Your task to perform on an android device: Show me popular games on the Play Store Image 0: 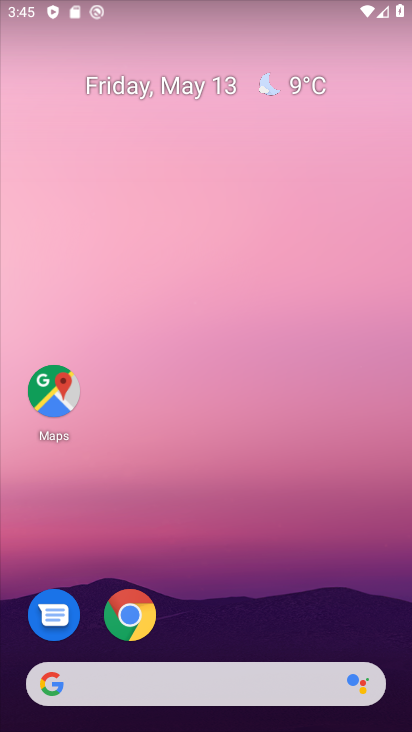
Step 0: drag from (197, 557) to (311, 158)
Your task to perform on an android device: Show me popular games on the Play Store Image 1: 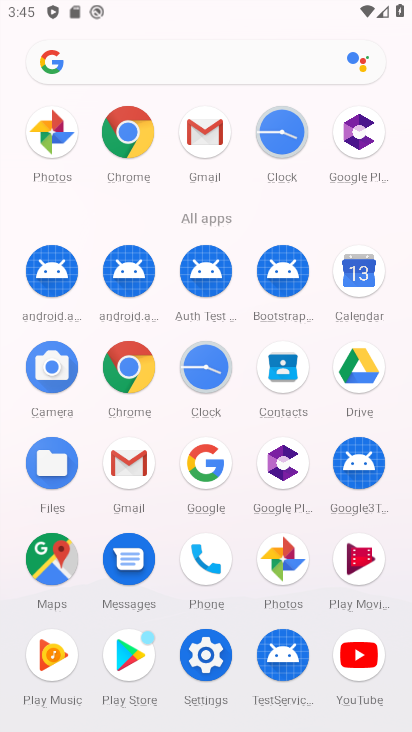
Step 1: click (135, 646)
Your task to perform on an android device: Show me popular games on the Play Store Image 2: 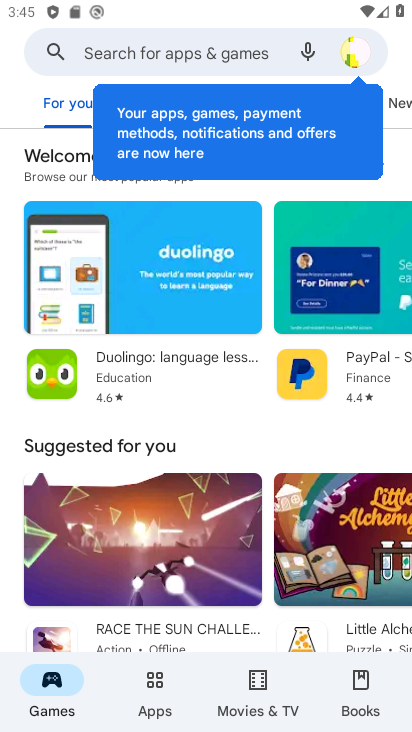
Step 2: click (63, 690)
Your task to perform on an android device: Show me popular games on the Play Store Image 3: 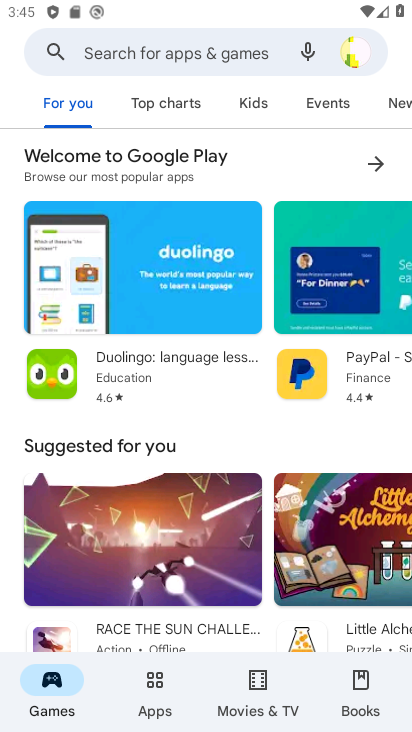
Step 3: drag from (198, 512) to (263, 72)
Your task to perform on an android device: Show me popular games on the Play Store Image 4: 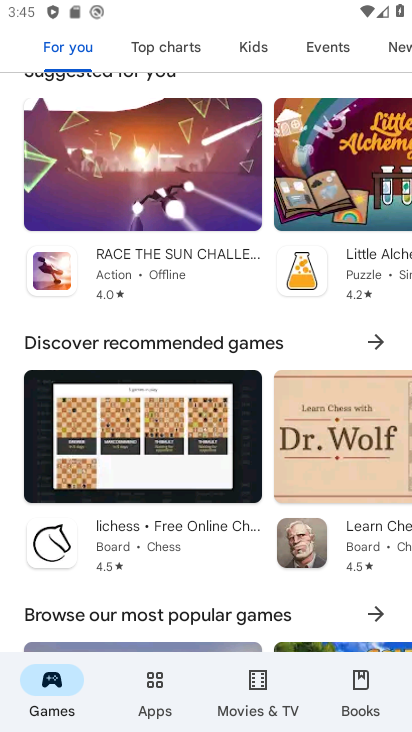
Step 4: drag from (162, 546) to (232, 111)
Your task to perform on an android device: Show me popular games on the Play Store Image 5: 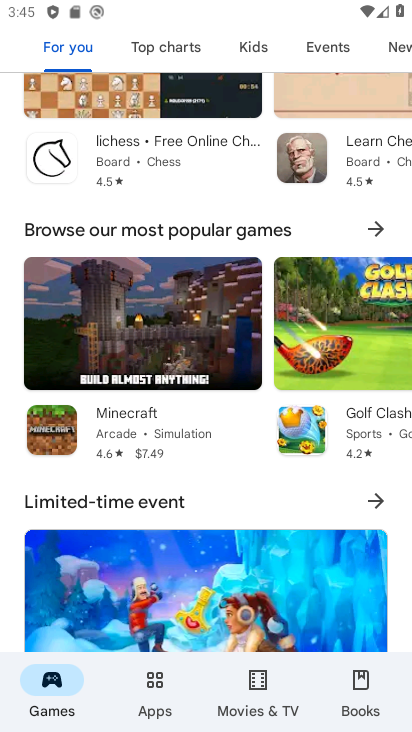
Step 5: click (351, 225)
Your task to perform on an android device: Show me popular games on the Play Store Image 6: 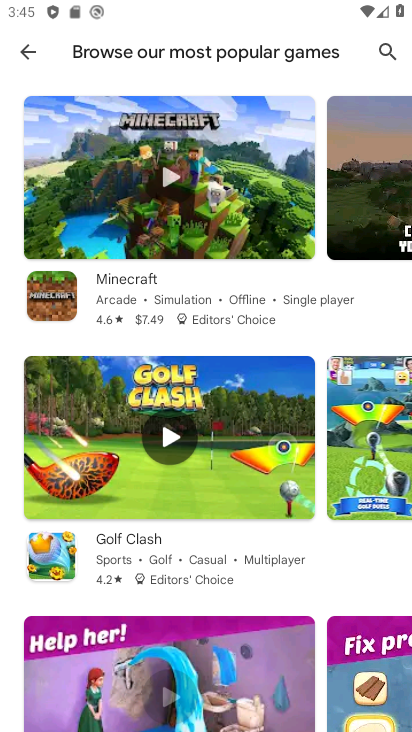
Step 6: task complete